Your task to perform on an android device: Open Wikipedia Image 0: 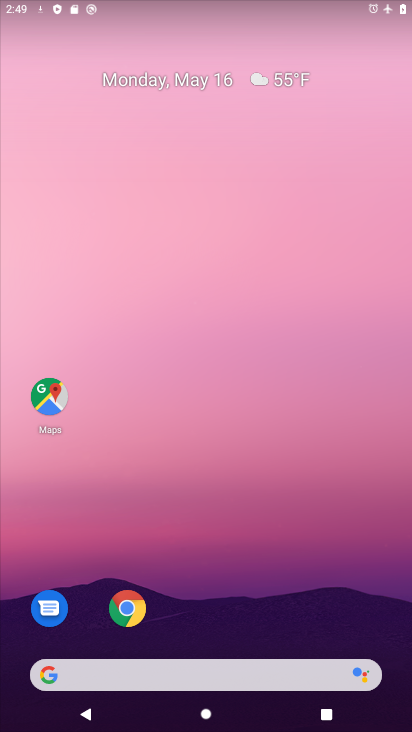
Step 0: click (140, 611)
Your task to perform on an android device: Open Wikipedia Image 1: 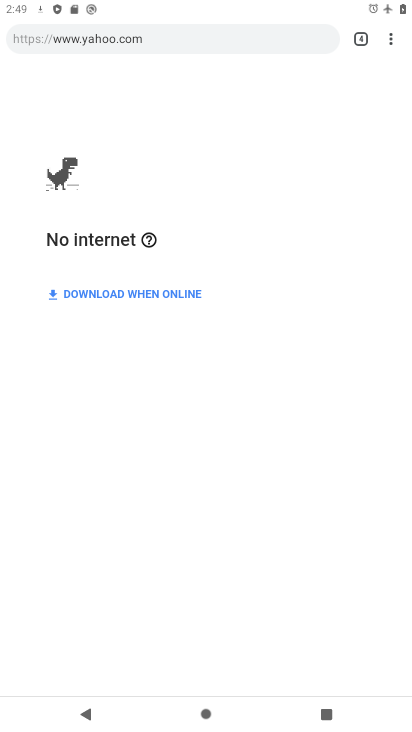
Step 1: click (362, 41)
Your task to perform on an android device: Open Wikipedia Image 2: 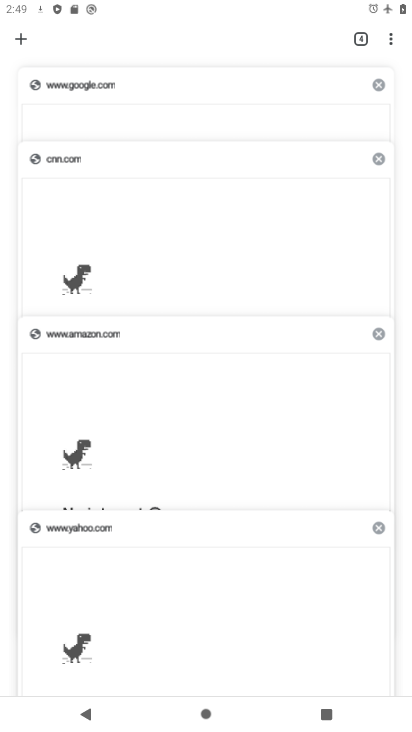
Step 2: click (13, 42)
Your task to perform on an android device: Open Wikipedia Image 3: 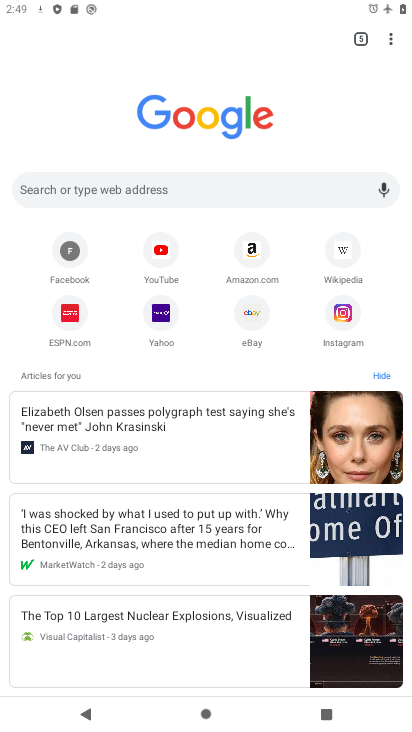
Step 3: click (325, 257)
Your task to perform on an android device: Open Wikipedia Image 4: 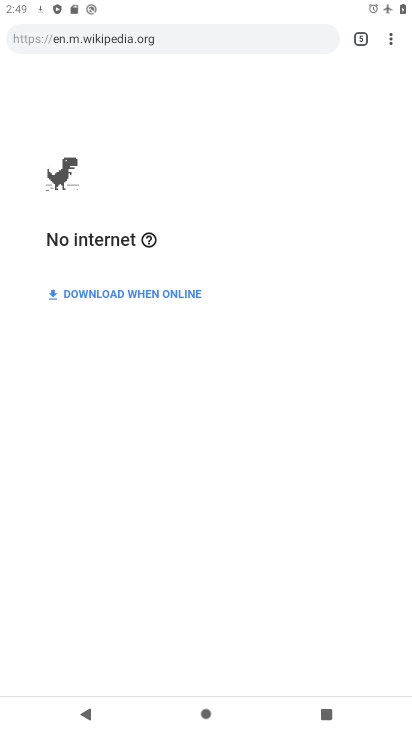
Step 4: task complete